Your task to perform on an android device: Open Google Chrome Image 0: 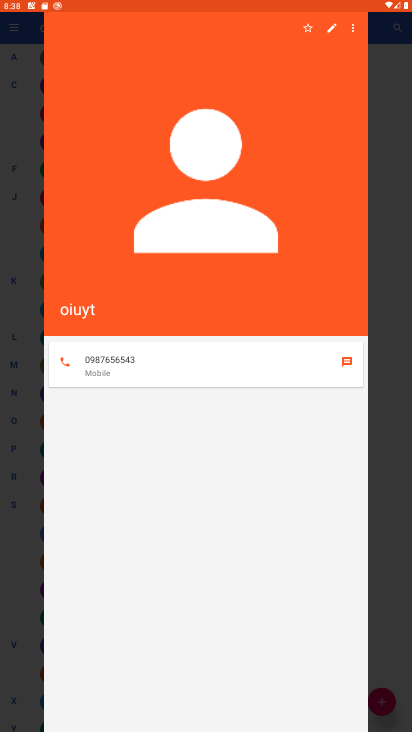
Step 0: drag from (218, 18) to (236, 399)
Your task to perform on an android device: Open Google Chrome Image 1: 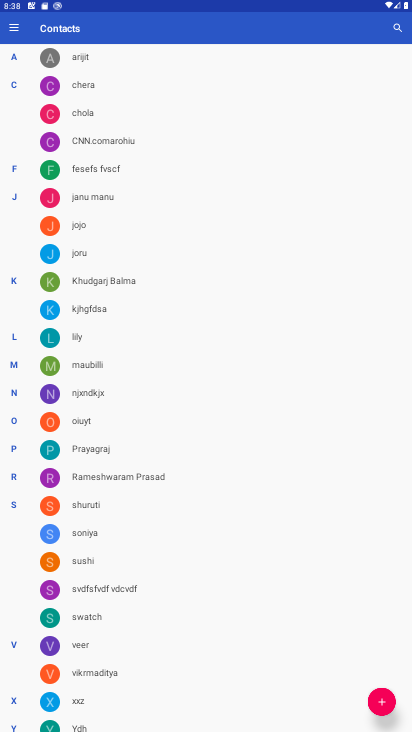
Step 1: press home button
Your task to perform on an android device: Open Google Chrome Image 2: 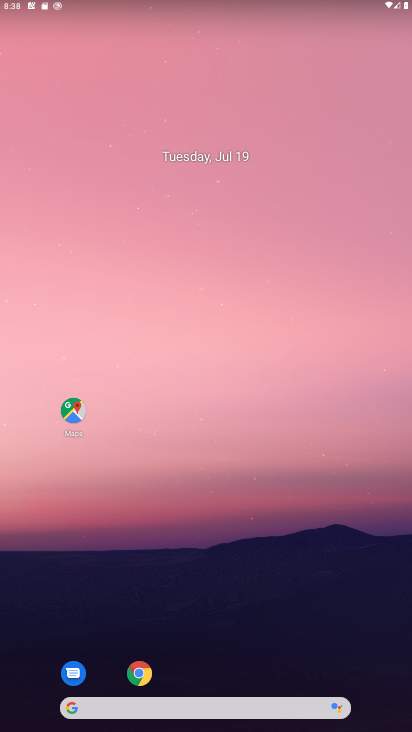
Step 2: click (140, 678)
Your task to perform on an android device: Open Google Chrome Image 3: 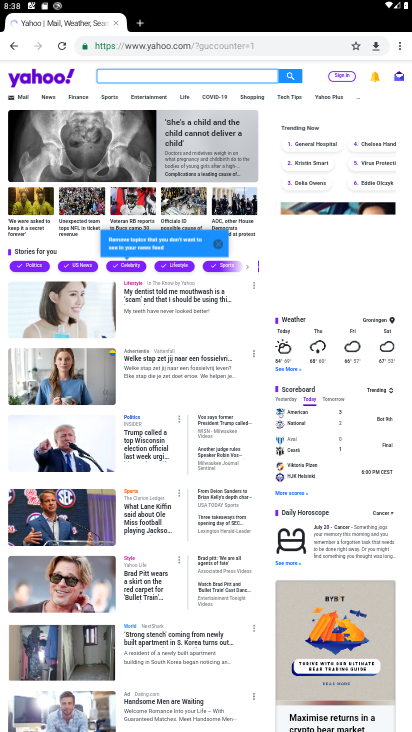
Step 3: task complete